Your task to perform on an android device: open the mobile data screen to see how much data has been used Image 0: 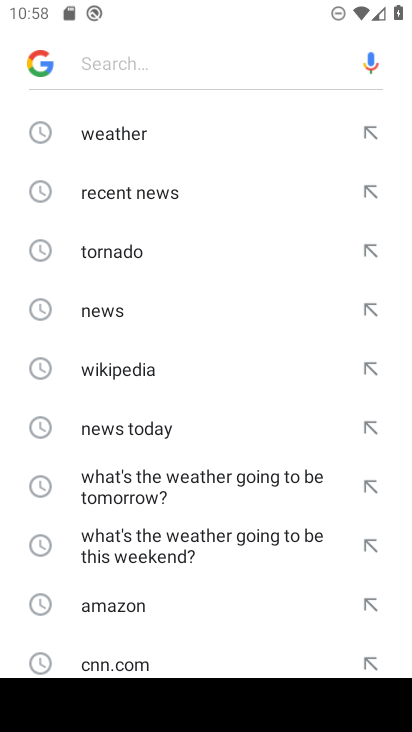
Step 0: press home button
Your task to perform on an android device: open the mobile data screen to see how much data has been used Image 1: 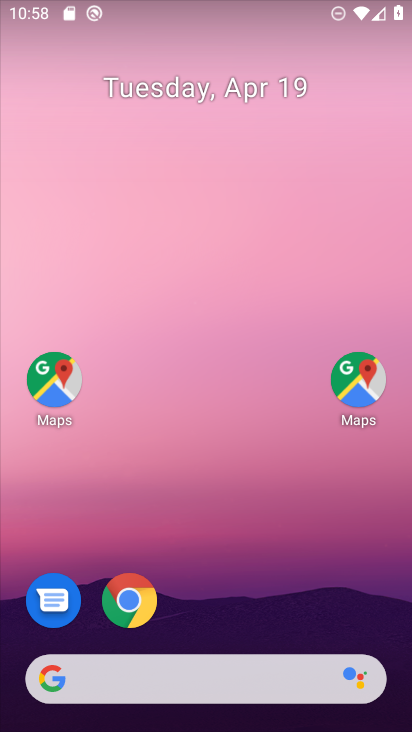
Step 1: drag from (328, 569) to (355, 47)
Your task to perform on an android device: open the mobile data screen to see how much data has been used Image 2: 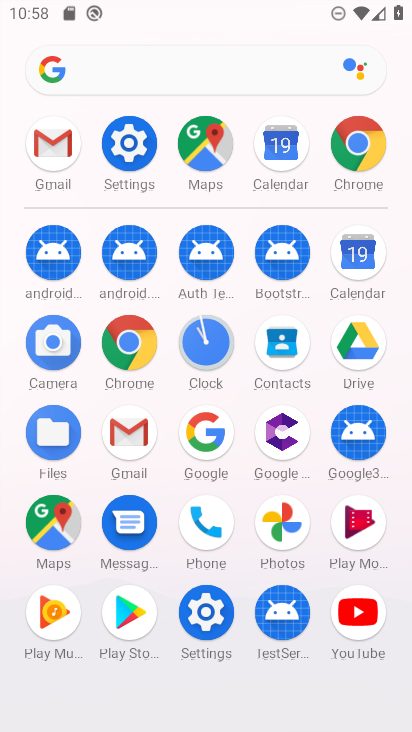
Step 2: click (212, 618)
Your task to perform on an android device: open the mobile data screen to see how much data has been used Image 3: 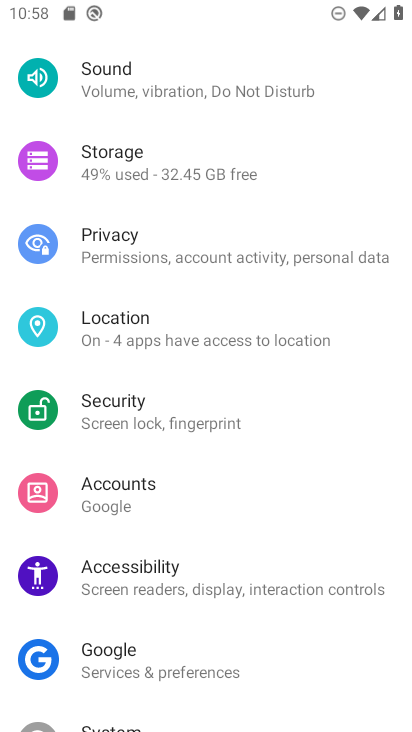
Step 3: drag from (276, 91) to (297, 703)
Your task to perform on an android device: open the mobile data screen to see how much data has been used Image 4: 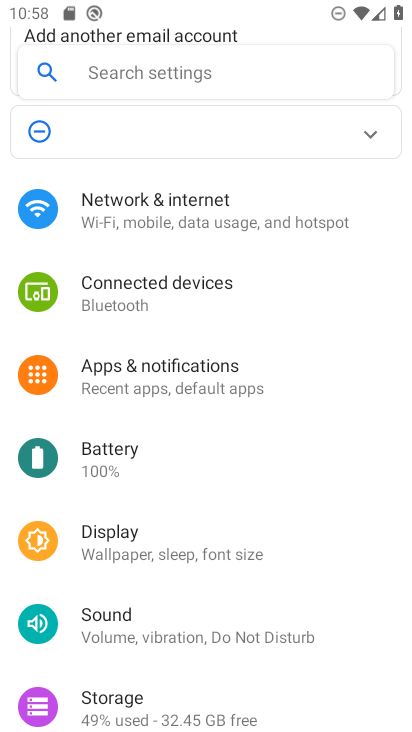
Step 4: click (179, 202)
Your task to perform on an android device: open the mobile data screen to see how much data has been used Image 5: 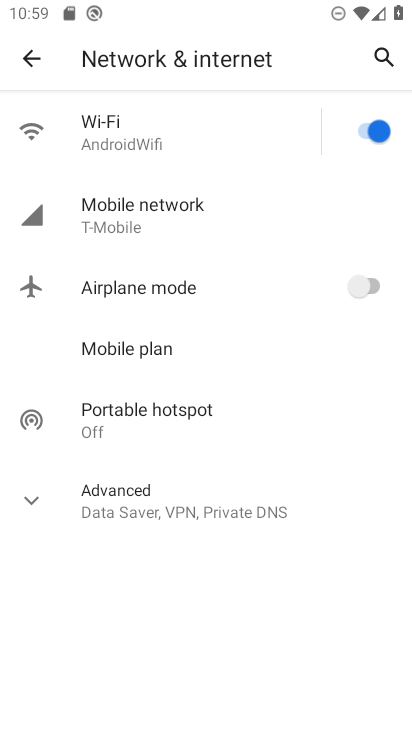
Step 5: click (189, 213)
Your task to perform on an android device: open the mobile data screen to see how much data has been used Image 6: 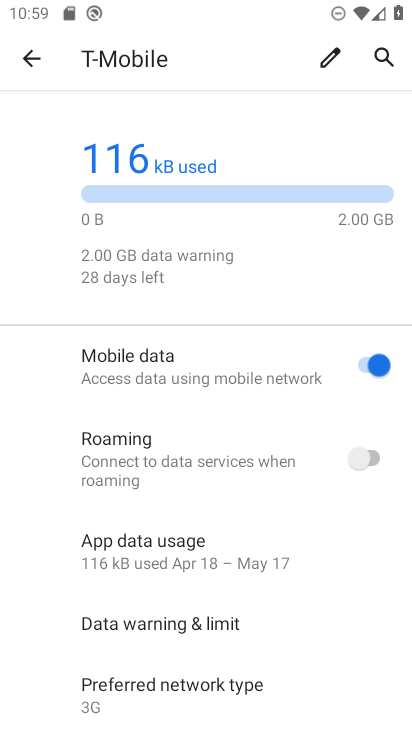
Step 6: click (209, 561)
Your task to perform on an android device: open the mobile data screen to see how much data has been used Image 7: 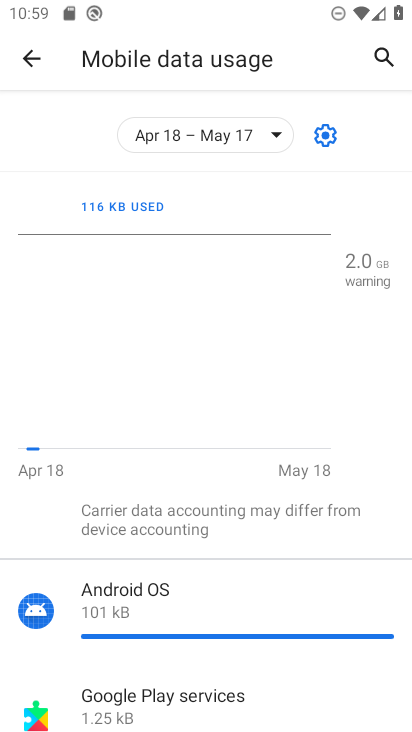
Step 7: task complete